Your task to perform on an android device: toggle translation in the chrome app Image 0: 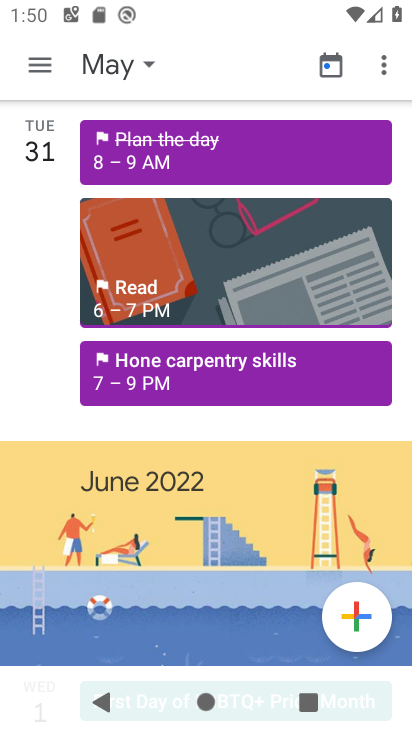
Step 0: press home button
Your task to perform on an android device: toggle translation in the chrome app Image 1: 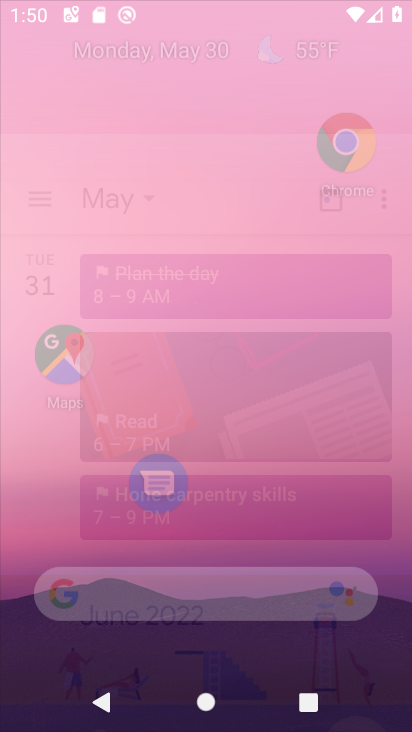
Step 1: drag from (199, 440) to (146, 7)
Your task to perform on an android device: toggle translation in the chrome app Image 2: 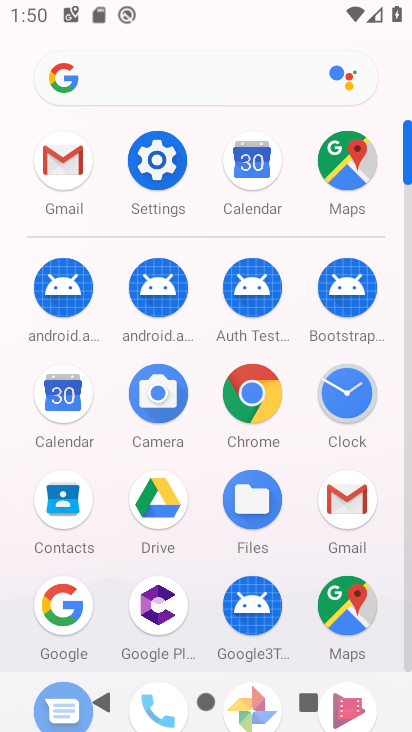
Step 2: click (262, 391)
Your task to perform on an android device: toggle translation in the chrome app Image 3: 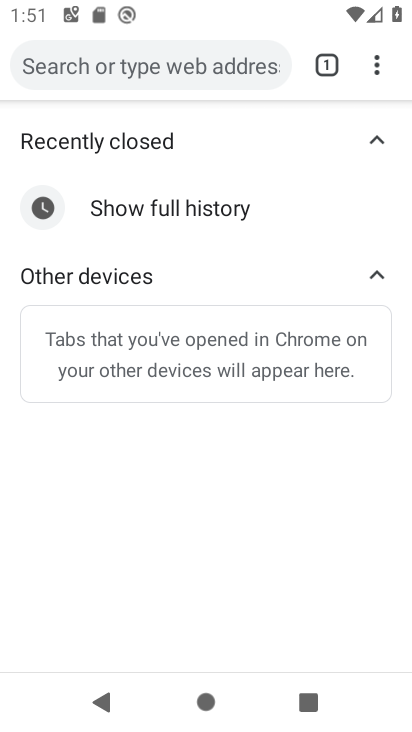
Step 3: drag from (386, 68) to (184, 541)
Your task to perform on an android device: toggle translation in the chrome app Image 4: 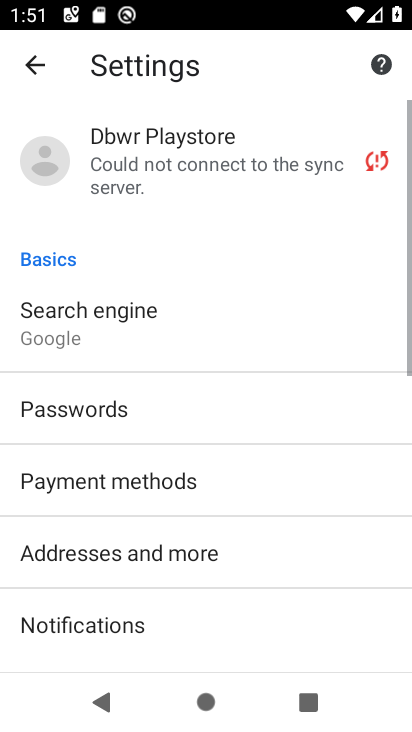
Step 4: drag from (184, 575) to (318, 73)
Your task to perform on an android device: toggle translation in the chrome app Image 5: 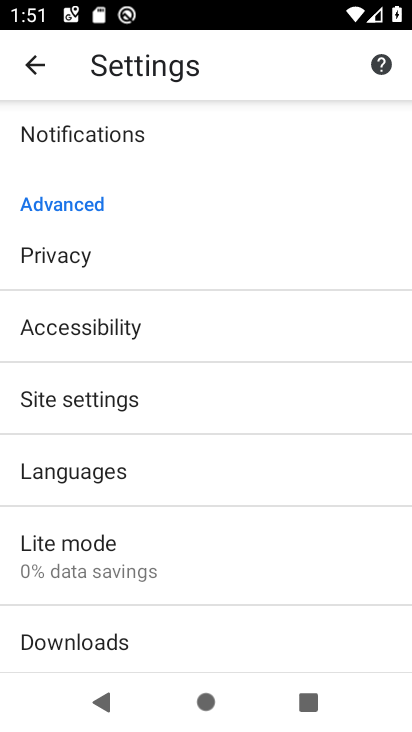
Step 5: click (135, 466)
Your task to perform on an android device: toggle translation in the chrome app Image 6: 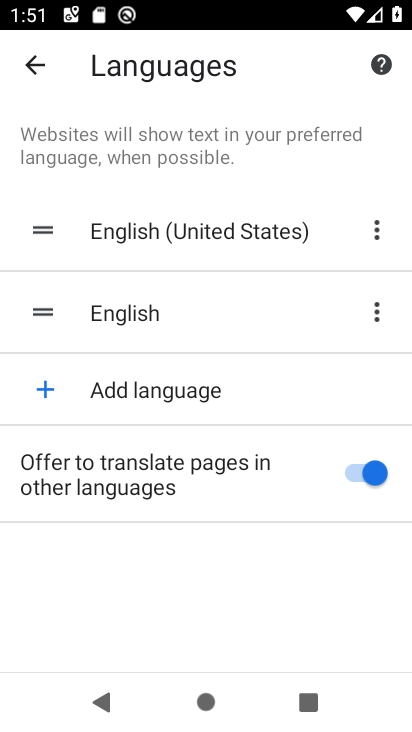
Step 6: click (364, 461)
Your task to perform on an android device: toggle translation in the chrome app Image 7: 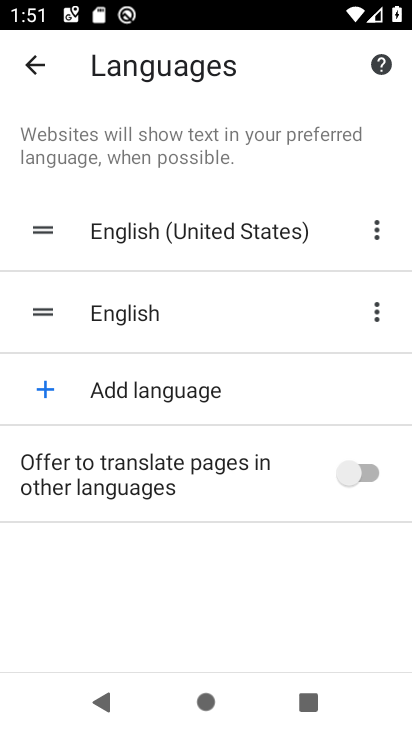
Step 7: task complete